Your task to perform on an android device: add a contact in the contacts app Image 0: 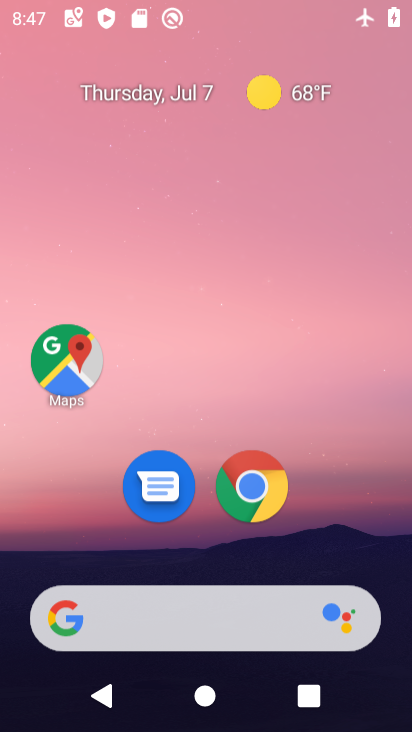
Step 0: click (371, 264)
Your task to perform on an android device: add a contact in the contacts app Image 1: 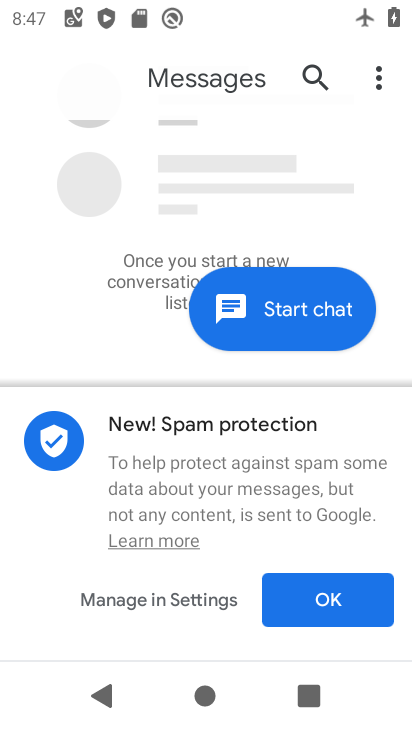
Step 1: press home button
Your task to perform on an android device: add a contact in the contacts app Image 2: 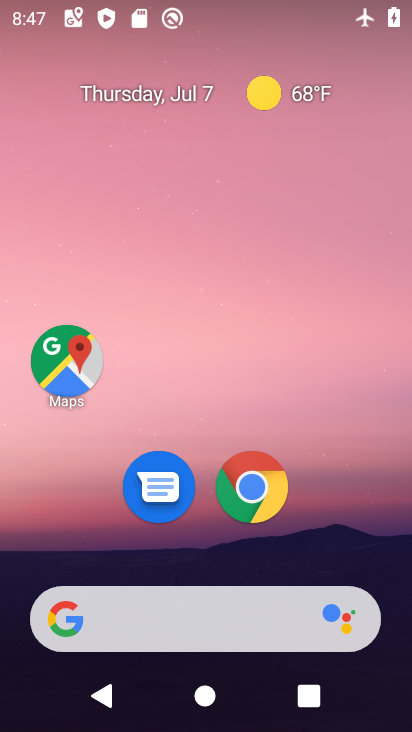
Step 2: drag from (35, 239) to (377, 247)
Your task to perform on an android device: add a contact in the contacts app Image 3: 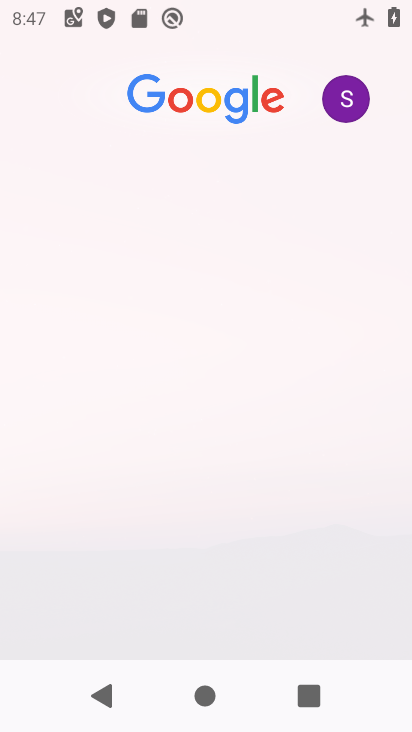
Step 3: press home button
Your task to perform on an android device: add a contact in the contacts app Image 4: 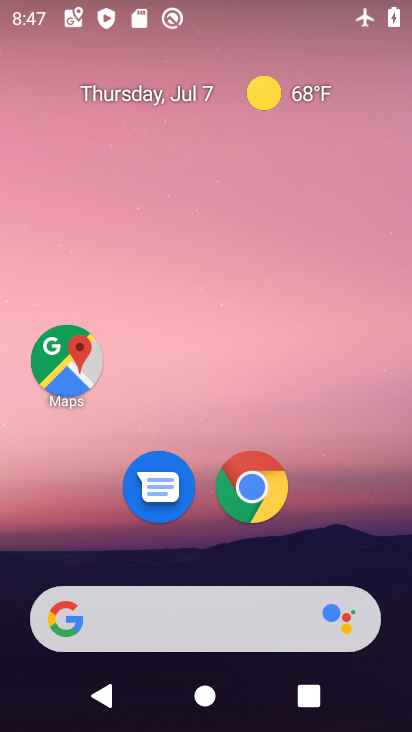
Step 4: drag from (201, 563) to (114, 28)
Your task to perform on an android device: add a contact in the contacts app Image 5: 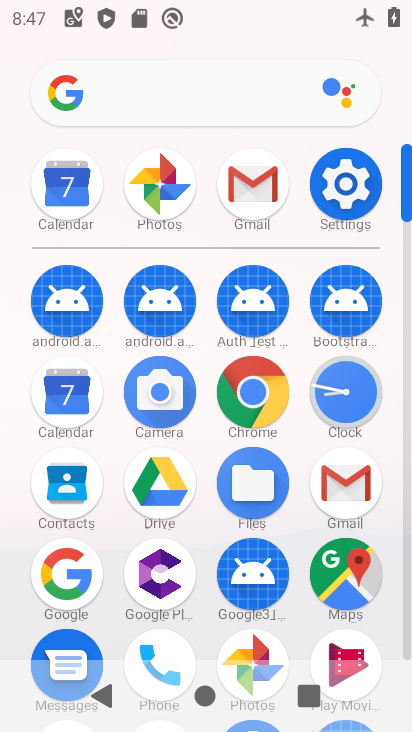
Step 5: click (129, 644)
Your task to perform on an android device: add a contact in the contacts app Image 6: 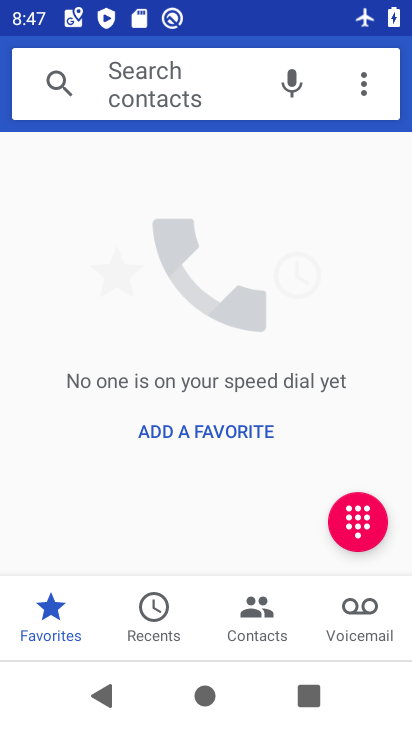
Step 6: click (231, 619)
Your task to perform on an android device: add a contact in the contacts app Image 7: 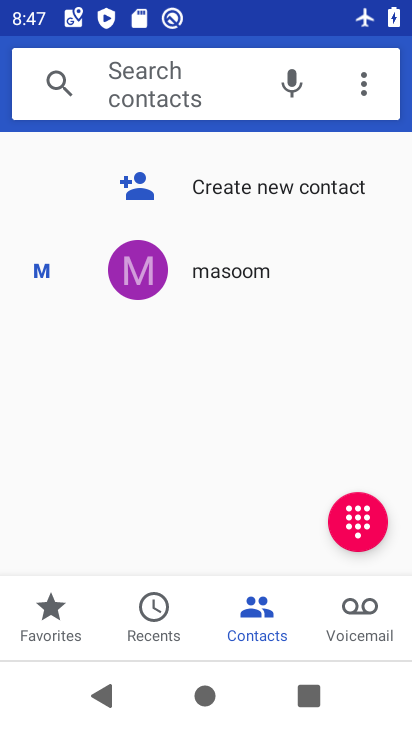
Step 7: click (157, 189)
Your task to perform on an android device: add a contact in the contacts app Image 8: 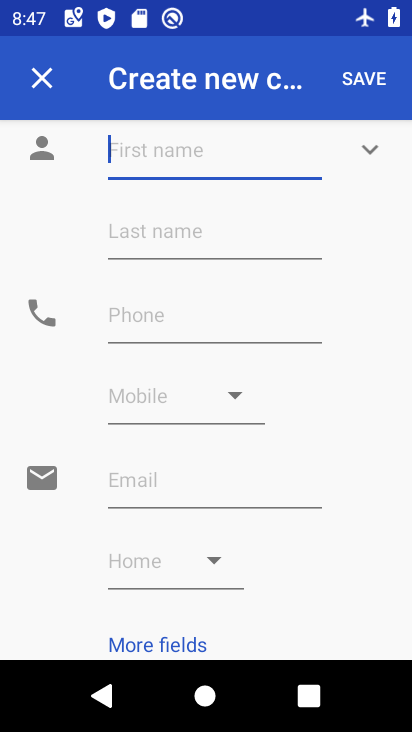
Step 8: type "mmmn"
Your task to perform on an android device: add a contact in the contacts app Image 9: 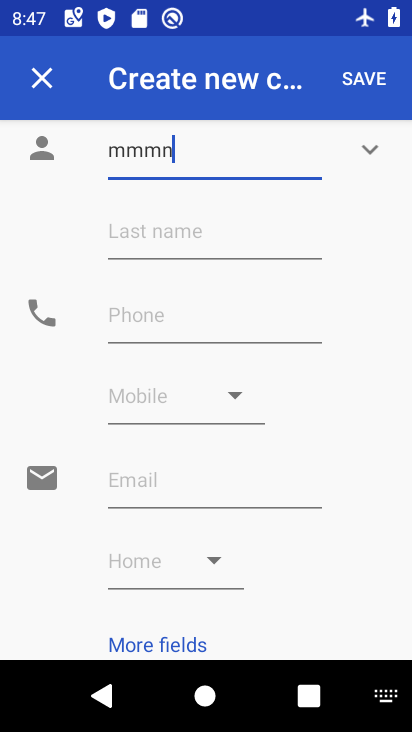
Step 9: click (176, 318)
Your task to perform on an android device: add a contact in the contacts app Image 10: 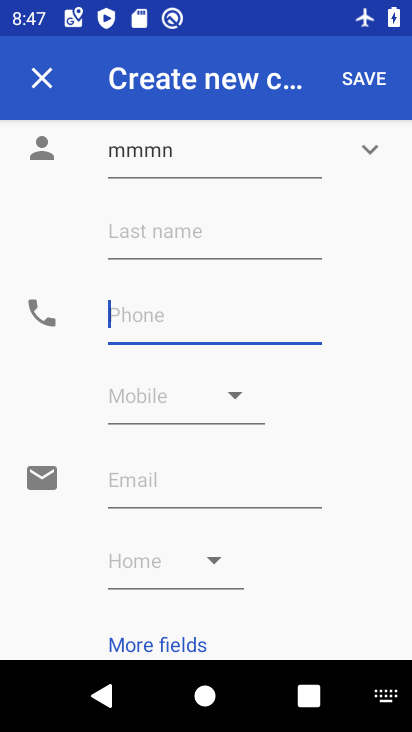
Step 10: type "8898"
Your task to perform on an android device: add a contact in the contacts app Image 11: 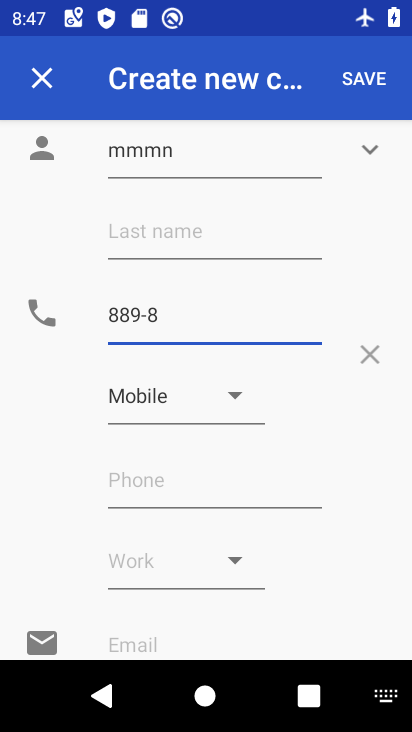
Step 11: click (353, 93)
Your task to perform on an android device: add a contact in the contacts app Image 12: 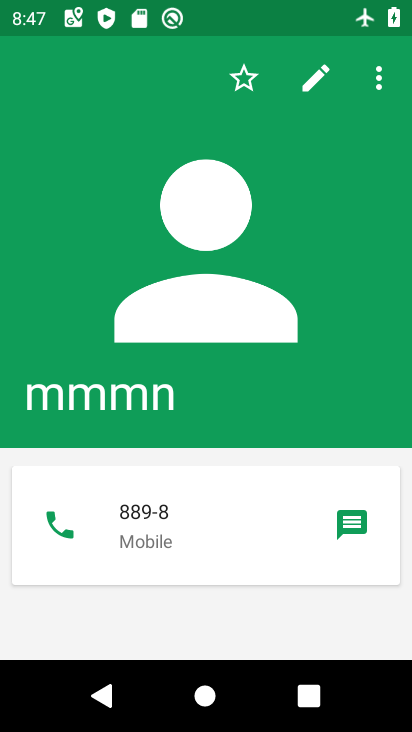
Step 12: task complete